Your task to perform on an android device: Go to Yahoo.com Image 0: 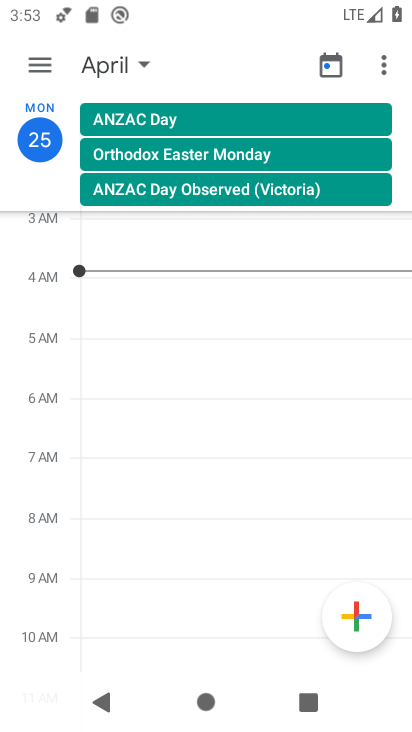
Step 0: press home button
Your task to perform on an android device: Go to Yahoo.com Image 1: 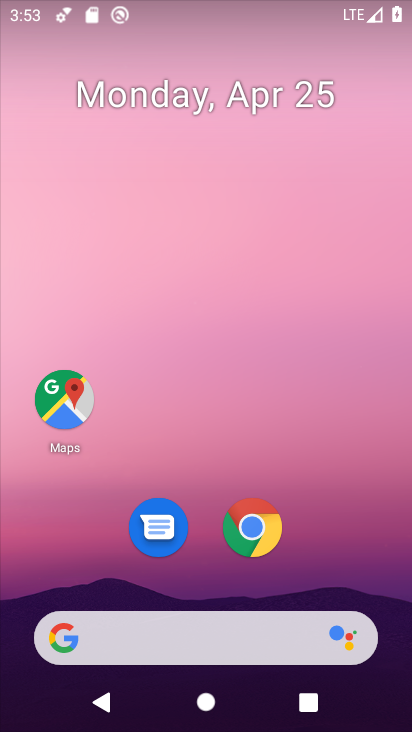
Step 1: click (252, 526)
Your task to perform on an android device: Go to Yahoo.com Image 2: 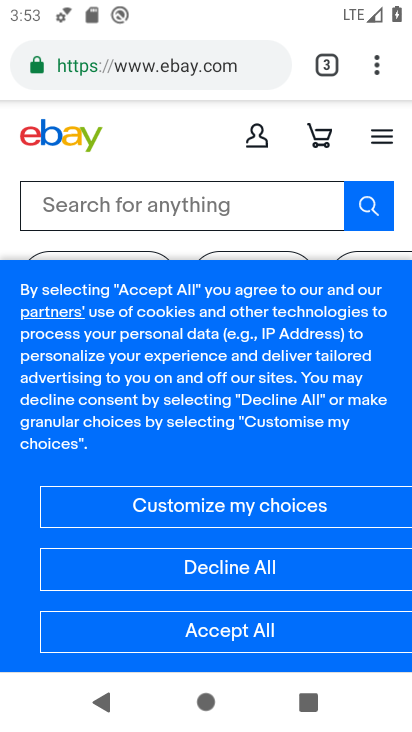
Step 2: click (148, 62)
Your task to perform on an android device: Go to Yahoo.com Image 3: 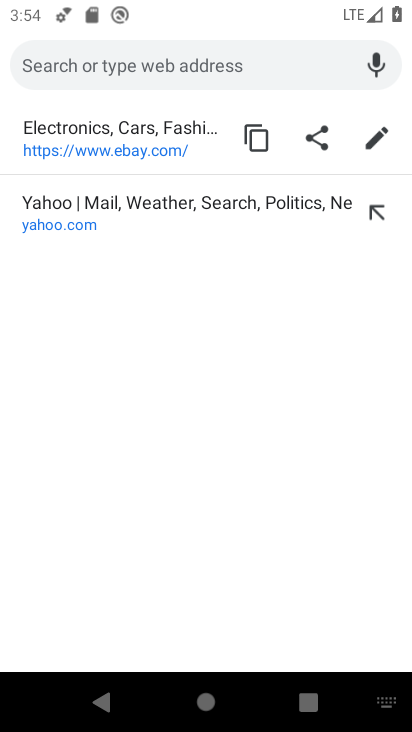
Step 3: type "yahoo.com"
Your task to perform on an android device: Go to Yahoo.com Image 4: 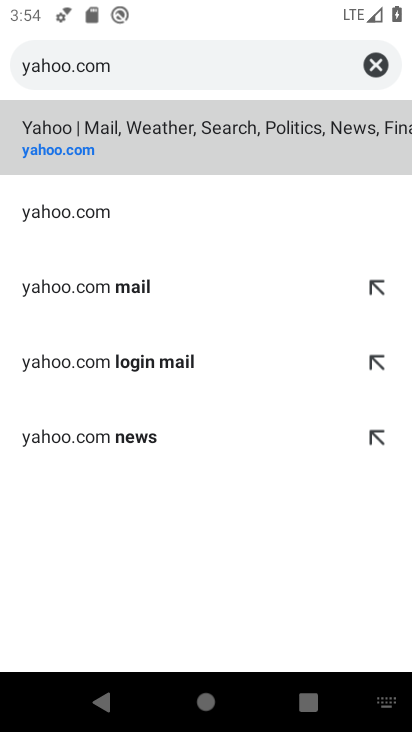
Step 4: click (143, 148)
Your task to perform on an android device: Go to Yahoo.com Image 5: 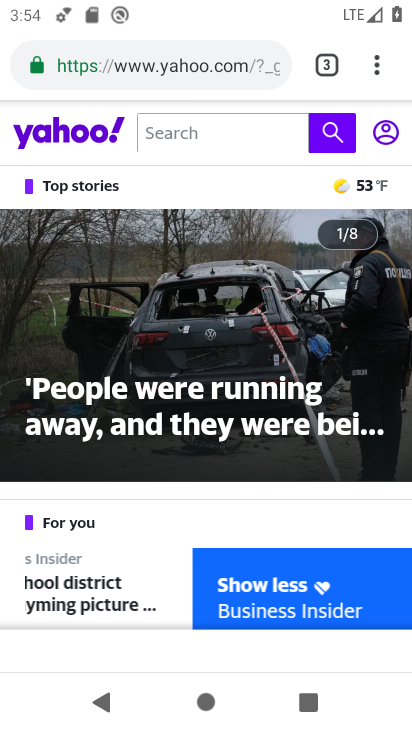
Step 5: task complete